Your task to perform on an android device: read, delete, or share a saved page in the chrome app Image 0: 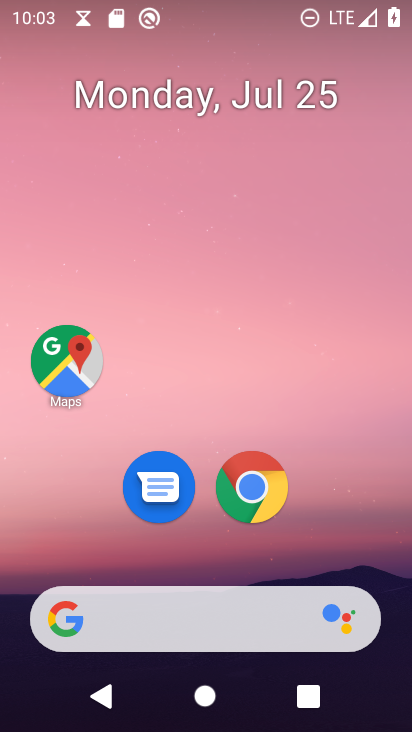
Step 0: click (238, 474)
Your task to perform on an android device: read, delete, or share a saved page in the chrome app Image 1: 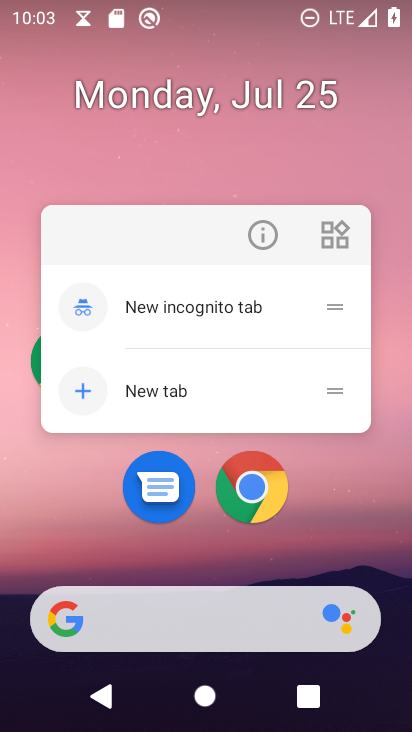
Step 1: click (259, 498)
Your task to perform on an android device: read, delete, or share a saved page in the chrome app Image 2: 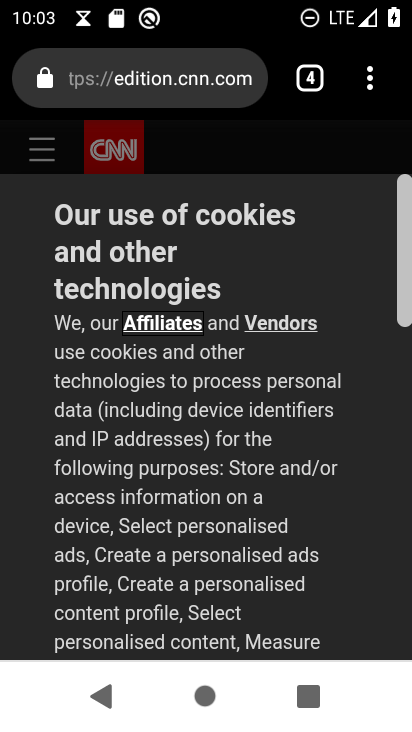
Step 2: drag from (371, 79) to (118, 509)
Your task to perform on an android device: read, delete, or share a saved page in the chrome app Image 3: 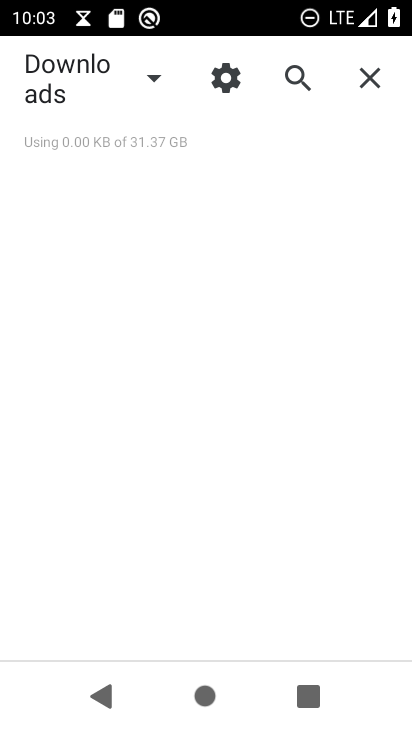
Step 3: click (141, 73)
Your task to perform on an android device: read, delete, or share a saved page in the chrome app Image 4: 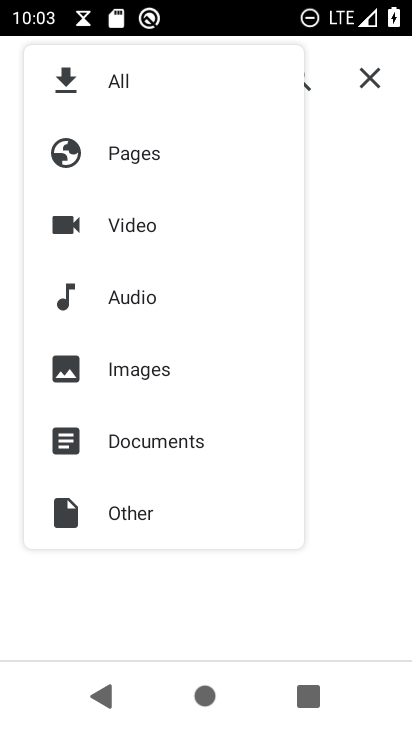
Step 4: click (138, 161)
Your task to perform on an android device: read, delete, or share a saved page in the chrome app Image 5: 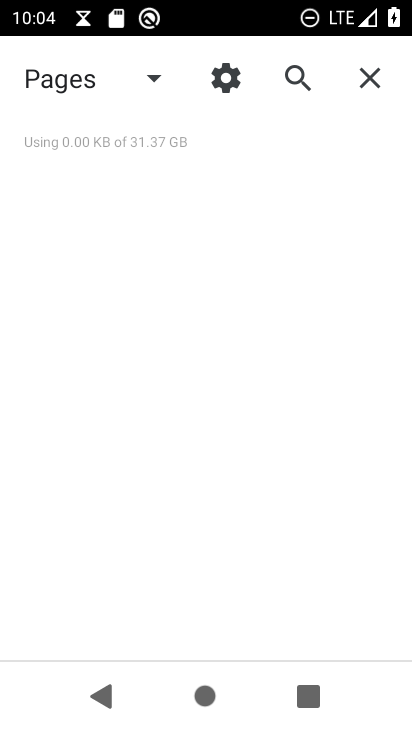
Step 5: task complete